Your task to perform on an android device: delete browsing data in the chrome app Image 0: 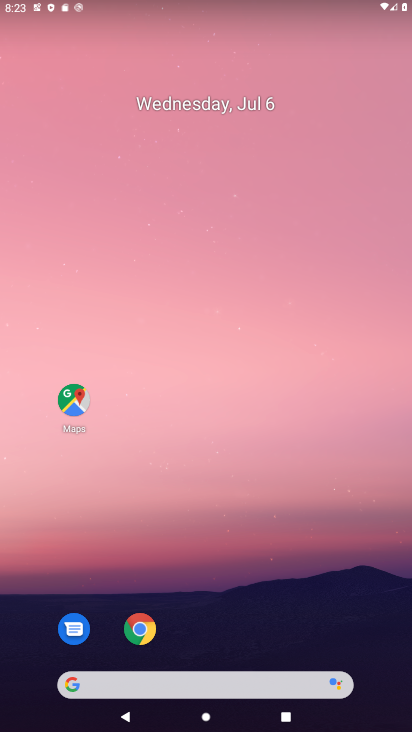
Step 0: drag from (222, 725) to (188, 171)
Your task to perform on an android device: delete browsing data in the chrome app Image 1: 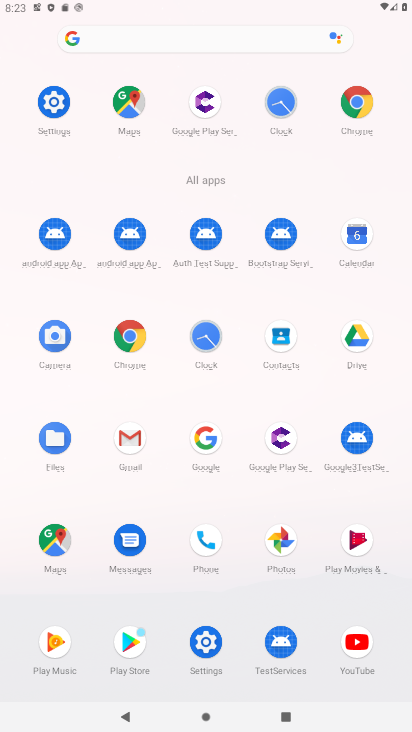
Step 1: click (358, 103)
Your task to perform on an android device: delete browsing data in the chrome app Image 2: 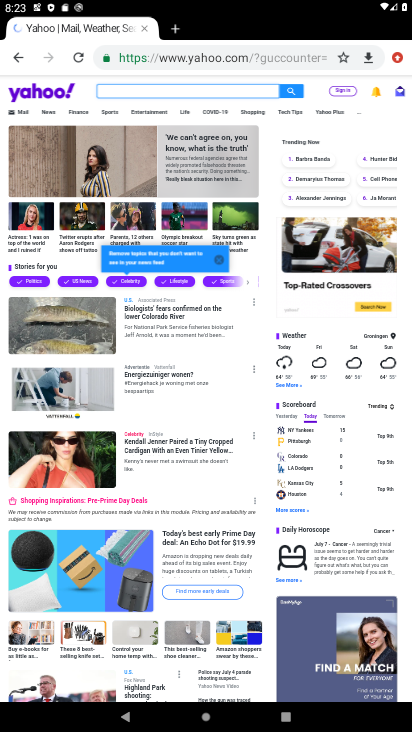
Step 2: click (399, 57)
Your task to perform on an android device: delete browsing data in the chrome app Image 3: 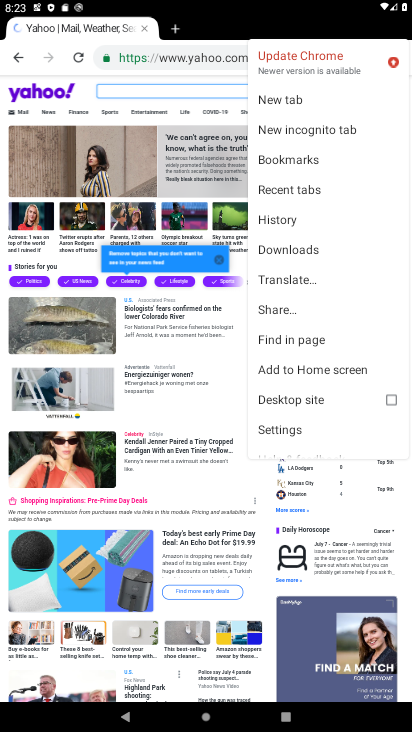
Step 3: click (279, 218)
Your task to perform on an android device: delete browsing data in the chrome app Image 4: 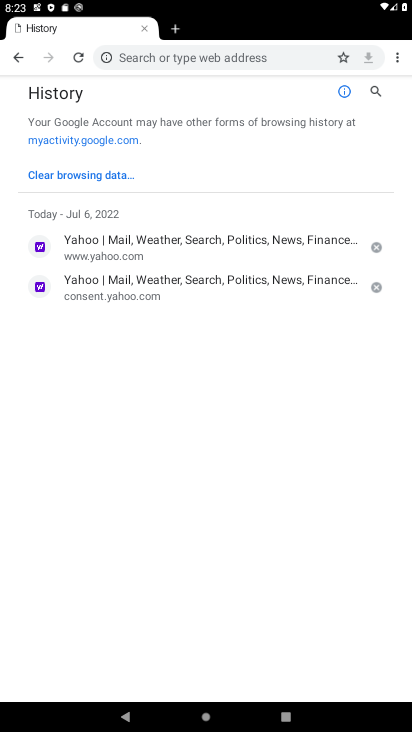
Step 4: click (97, 169)
Your task to perform on an android device: delete browsing data in the chrome app Image 5: 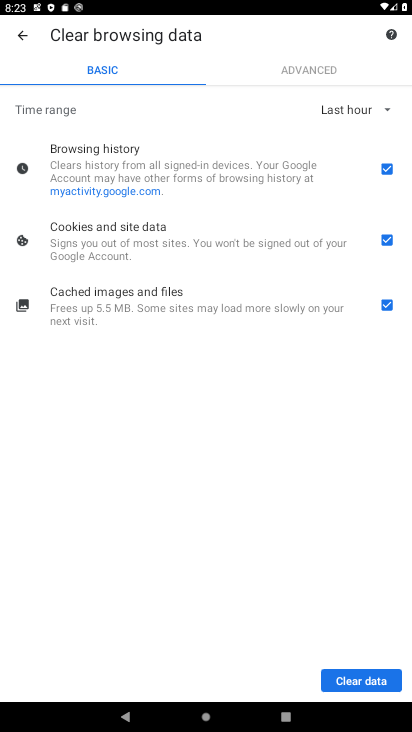
Step 5: click (391, 300)
Your task to perform on an android device: delete browsing data in the chrome app Image 6: 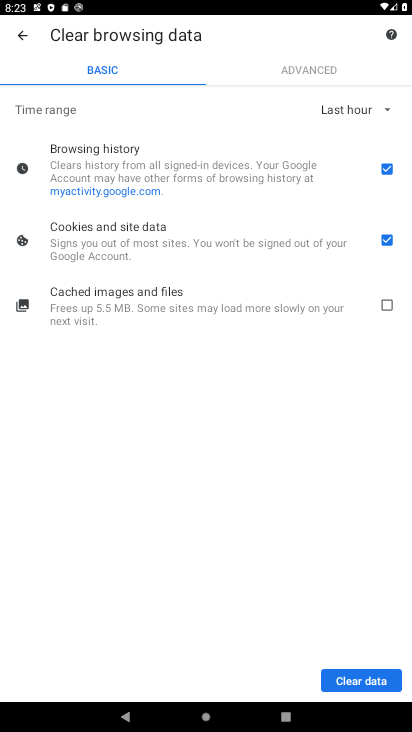
Step 6: click (386, 238)
Your task to perform on an android device: delete browsing data in the chrome app Image 7: 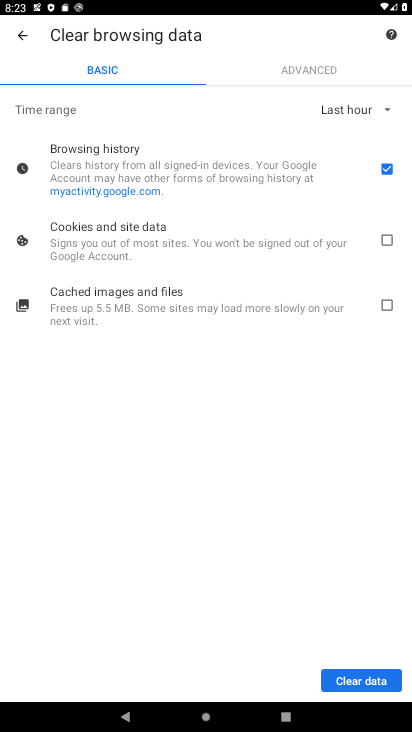
Step 7: click (355, 682)
Your task to perform on an android device: delete browsing data in the chrome app Image 8: 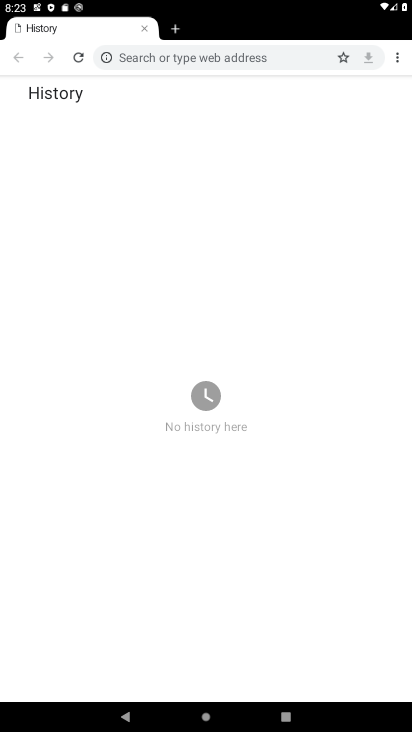
Step 8: task complete